Your task to perform on an android device: toggle translation in the chrome app Image 0: 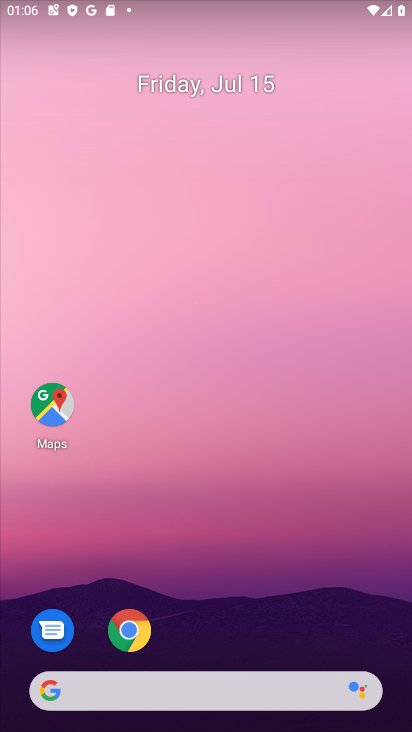
Step 0: click (151, 639)
Your task to perform on an android device: toggle translation in the chrome app Image 1: 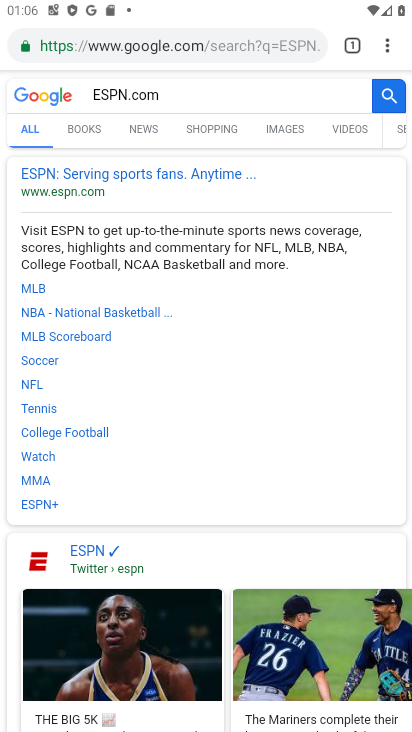
Step 1: click (381, 48)
Your task to perform on an android device: toggle translation in the chrome app Image 2: 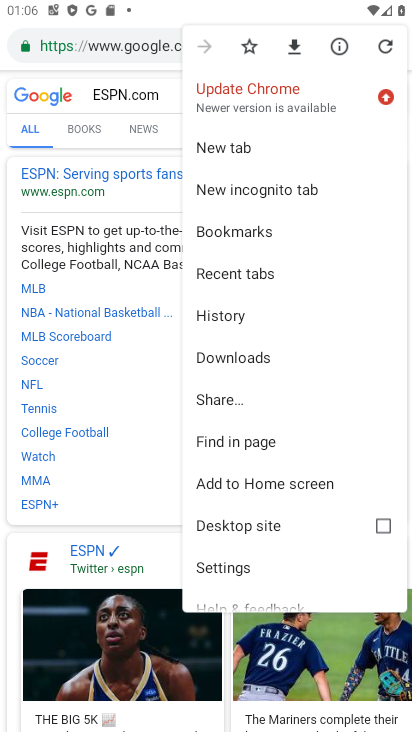
Step 2: click (230, 578)
Your task to perform on an android device: toggle translation in the chrome app Image 3: 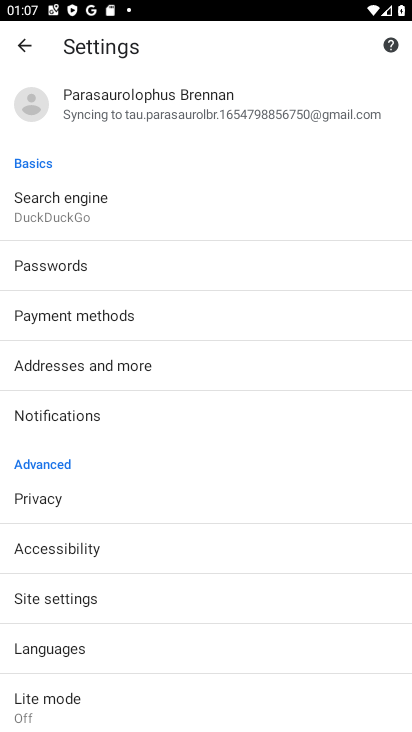
Step 3: click (92, 657)
Your task to perform on an android device: toggle translation in the chrome app Image 4: 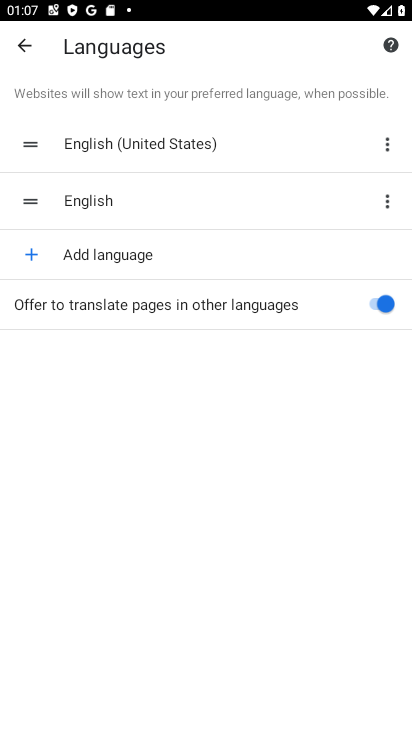
Step 4: click (322, 288)
Your task to perform on an android device: toggle translation in the chrome app Image 5: 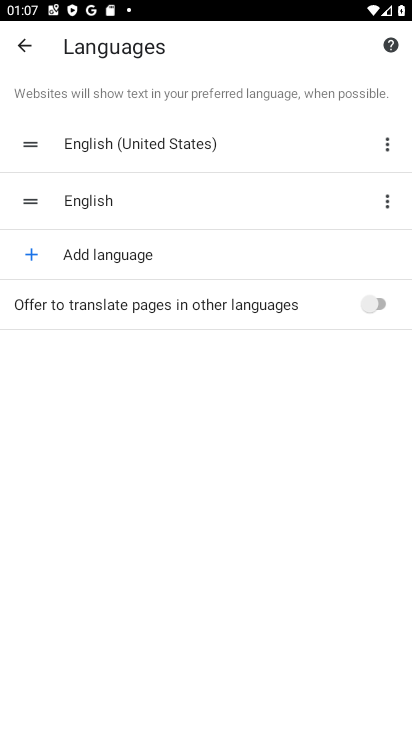
Step 5: task complete